Your task to perform on an android device: Show me popular games on the Play Store Image 0: 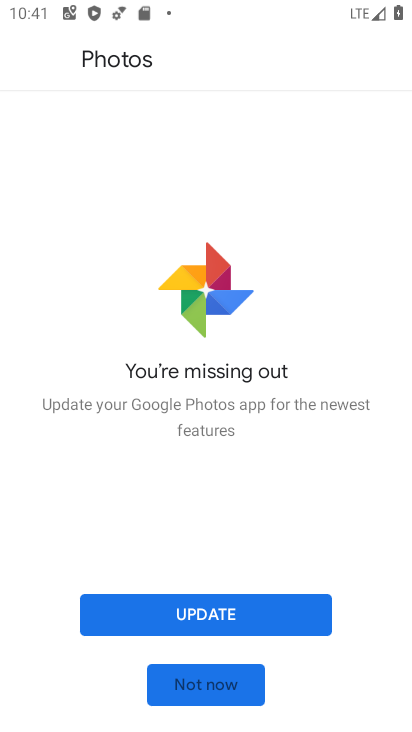
Step 0: press home button
Your task to perform on an android device: Show me popular games on the Play Store Image 1: 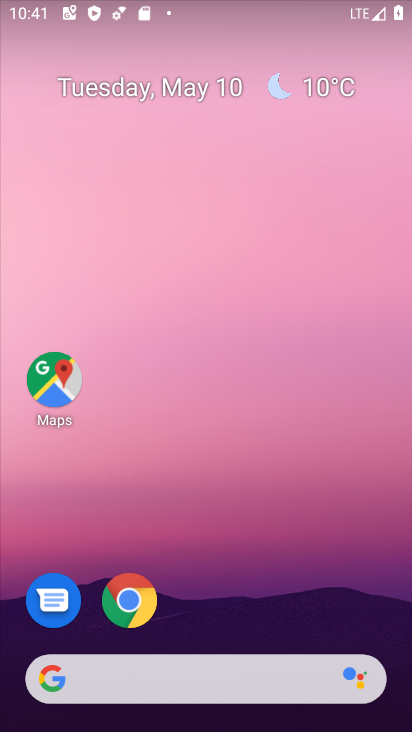
Step 1: drag from (271, 574) to (260, 147)
Your task to perform on an android device: Show me popular games on the Play Store Image 2: 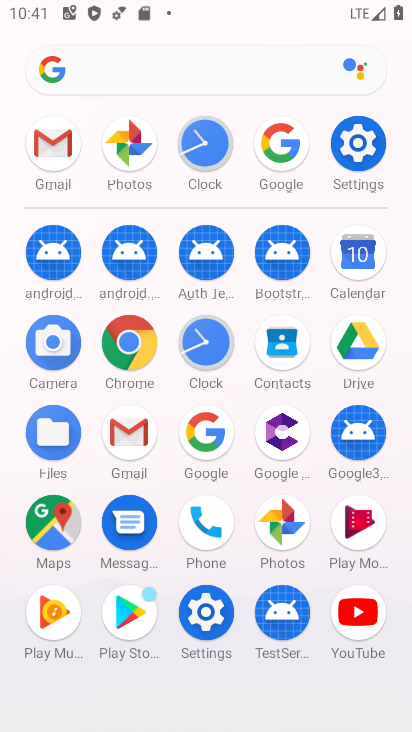
Step 2: click (126, 630)
Your task to perform on an android device: Show me popular games on the Play Store Image 3: 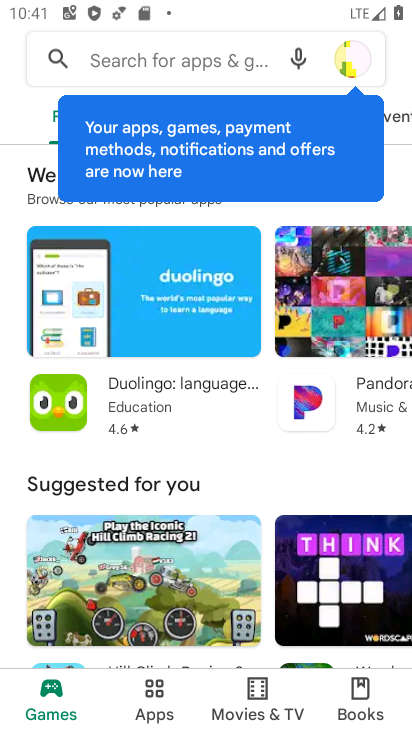
Step 3: click (8, 123)
Your task to perform on an android device: Show me popular games on the Play Store Image 4: 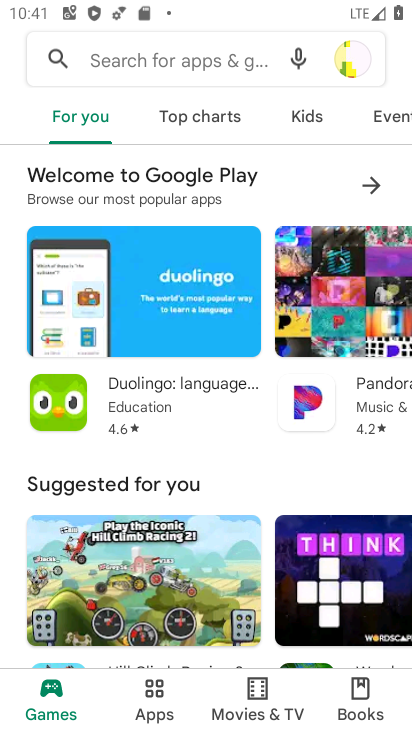
Step 4: click (178, 114)
Your task to perform on an android device: Show me popular games on the Play Store Image 5: 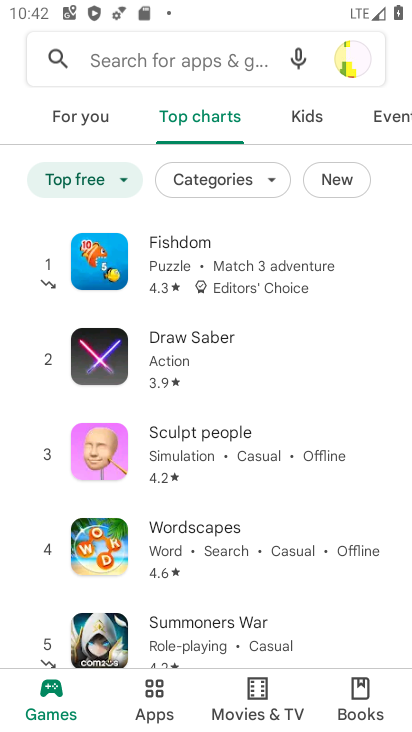
Step 5: task complete